Your task to perform on an android device: Play the last video I watched on Youtube Image 0: 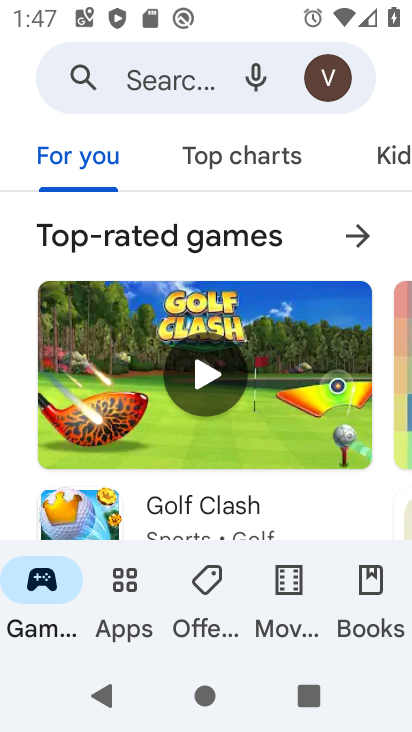
Step 0: press back button
Your task to perform on an android device: Play the last video I watched on Youtube Image 1: 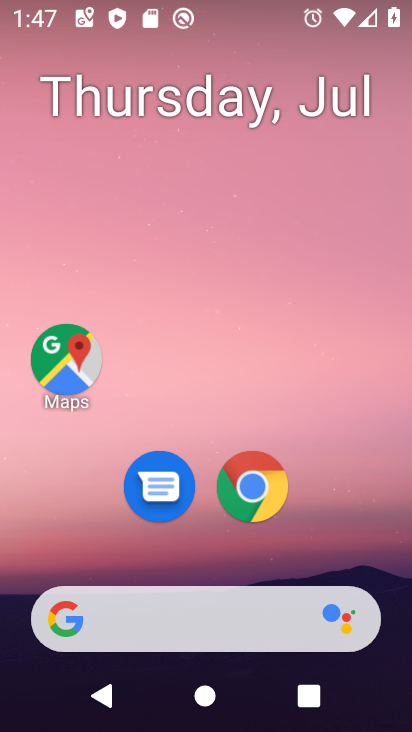
Step 1: drag from (165, 518) to (311, 5)
Your task to perform on an android device: Play the last video I watched on Youtube Image 2: 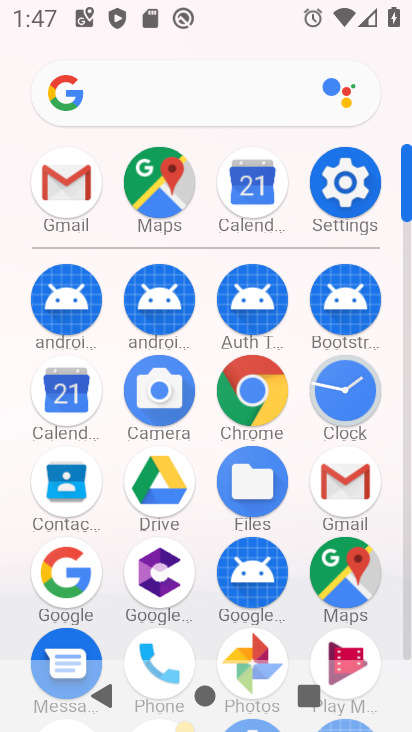
Step 2: drag from (139, 583) to (171, 8)
Your task to perform on an android device: Play the last video I watched on Youtube Image 3: 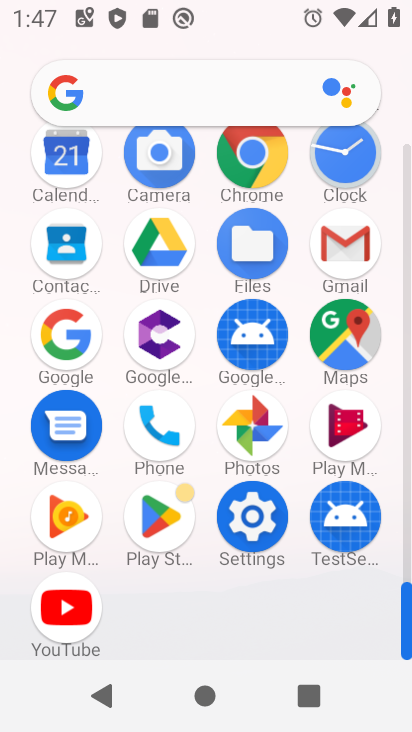
Step 3: click (63, 613)
Your task to perform on an android device: Play the last video I watched on Youtube Image 4: 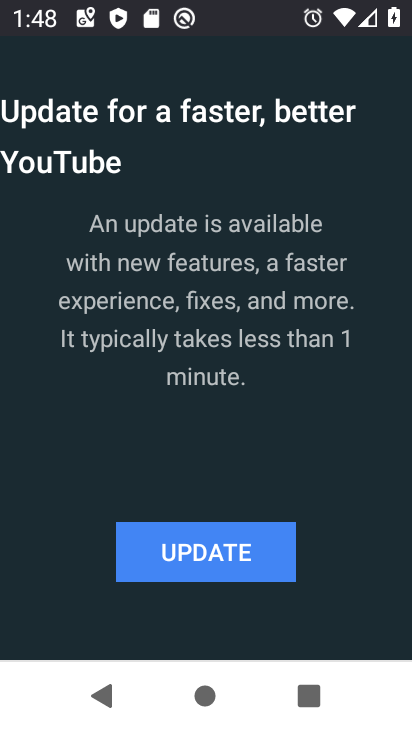
Step 4: click (178, 543)
Your task to perform on an android device: Play the last video I watched on Youtube Image 5: 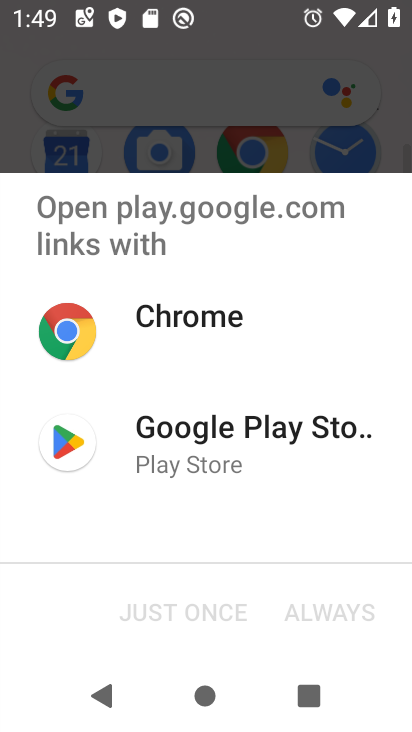
Step 5: click (164, 417)
Your task to perform on an android device: Play the last video I watched on Youtube Image 6: 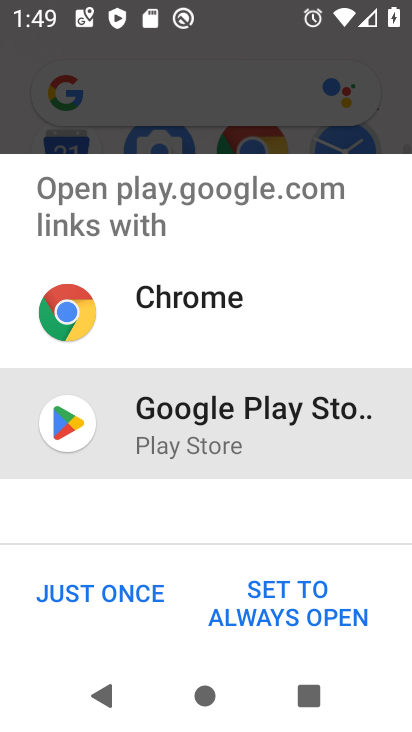
Step 6: click (96, 590)
Your task to perform on an android device: Play the last video I watched on Youtube Image 7: 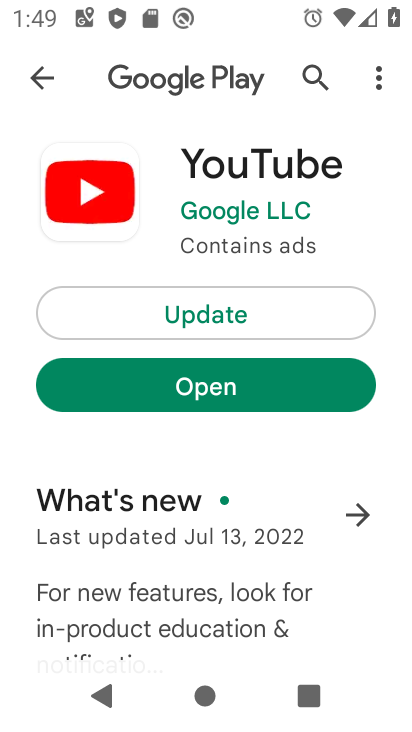
Step 7: click (184, 321)
Your task to perform on an android device: Play the last video I watched on Youtube Image 8: 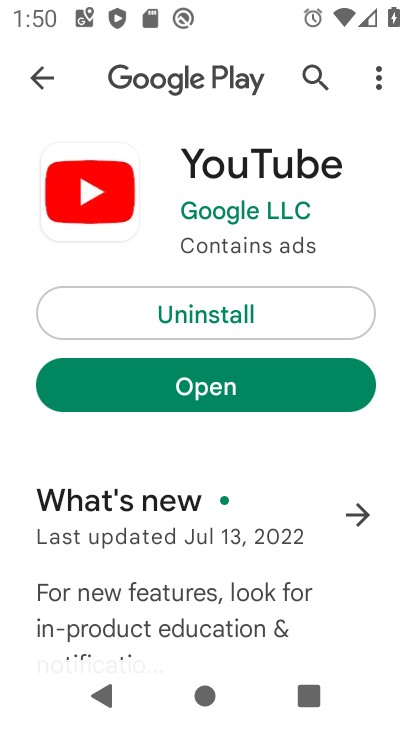
Step 8: click (193, 399)
Your task to perform on an android device: Play the last video I watched on Youtube Image 9: 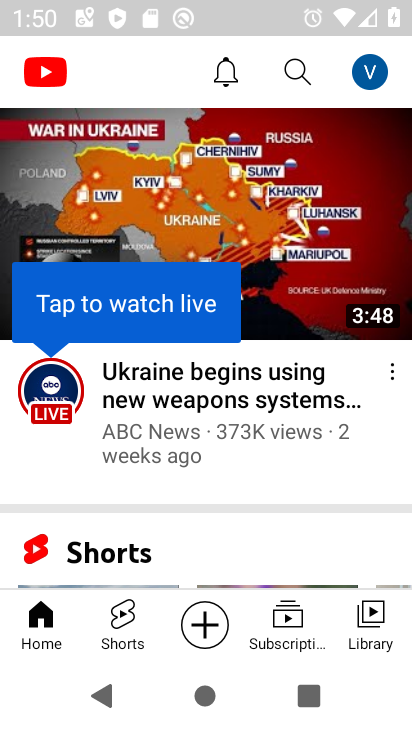
Step 9: click (366, 634)
Your task to perform on an android device: Play the last video I watched on Youtube Image 10: 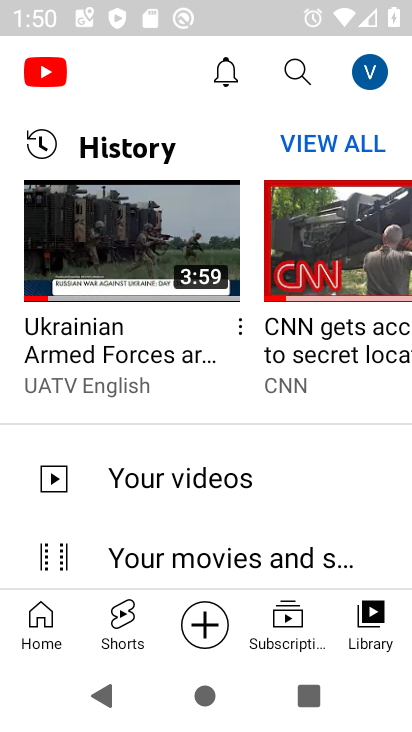
Step 10: click (130, 292)
Your task to perform on an android device: Play the last video I watched on Youtube Image 11: 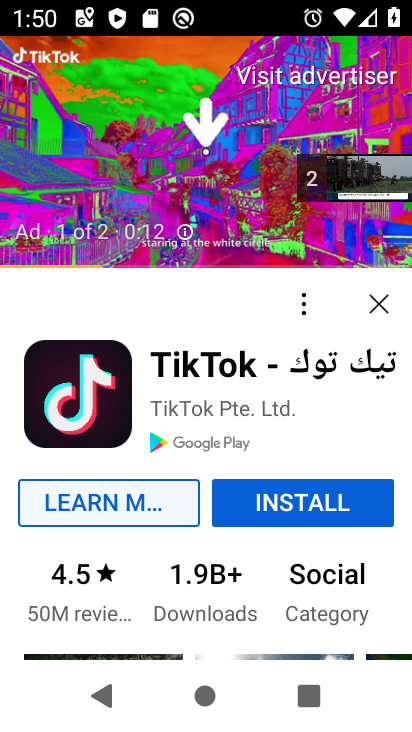
Step 11: click (204, 153)
Your task to perform on an android device: Play the last video I watched on Youtube Image 12: 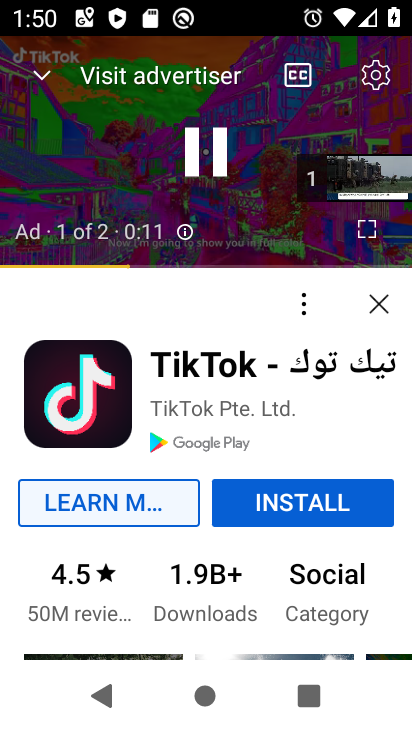
Step 12: click (204, 153)
Your task to perform on an android device: Play the last video I watched on Youtube Image 13: 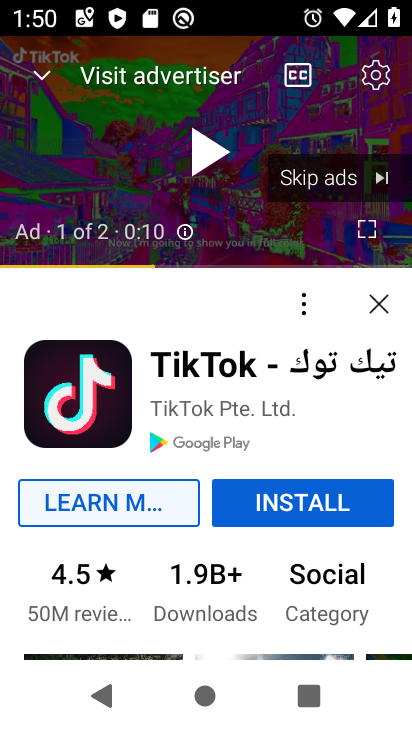
Step 13: task complete